Your task to perform on an android device: Toggle the flashlight Image 0: 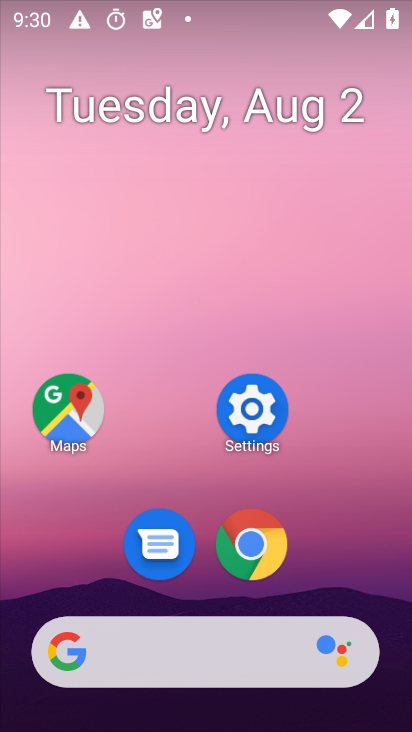
Step 0: drag from (249, 3) to (188, 505)
Your task to perform on an android device: Toggle the flashlight Image 1: 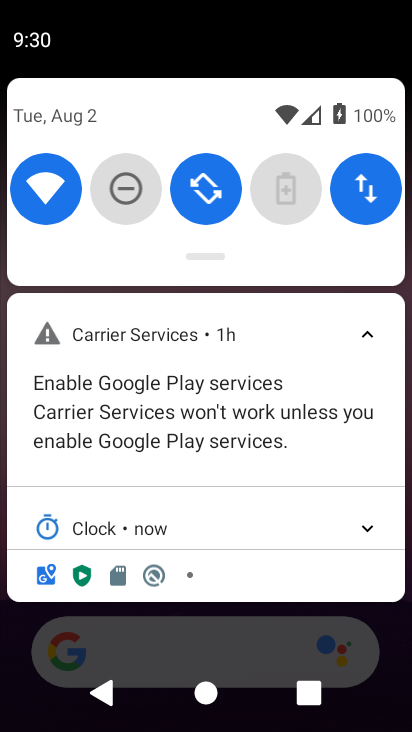
Step 1: task complete